Your task to perform on an android device: Go to Android settings Image 0: 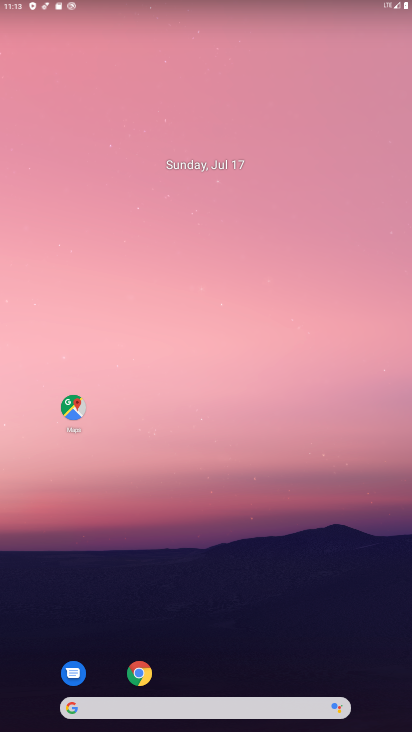
Step 0: press home button
Your task to perform on an android device: Go to Android settings Image 1: 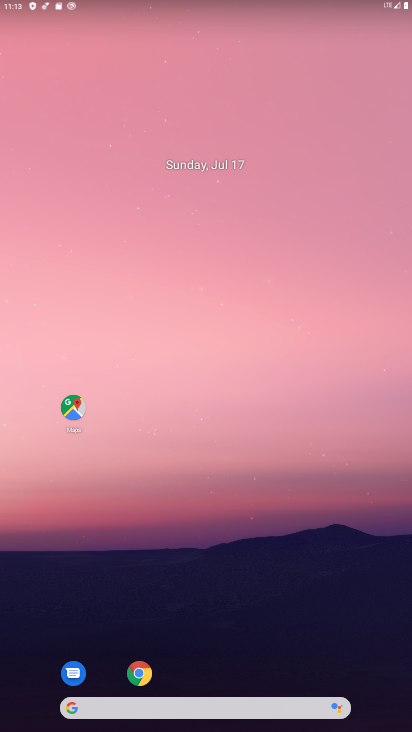
Step 1: drag from (247, 602) to (155, 170)
Your task to perform on an android device: Go to Android settings Image 2: 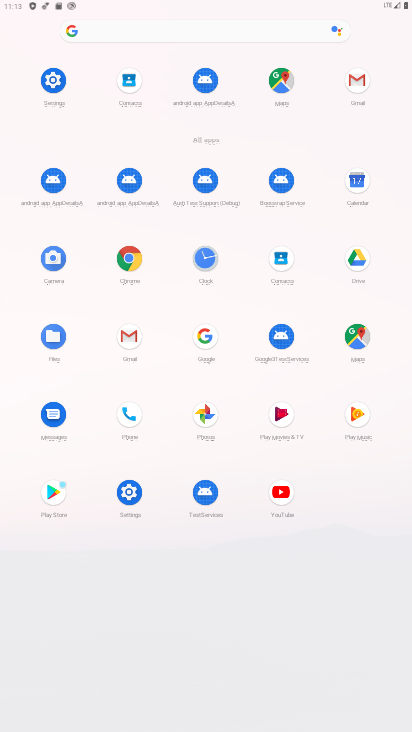
Step 2: click (47, 81)
Your task to perform on an android device: Go to Android settings Image 3: 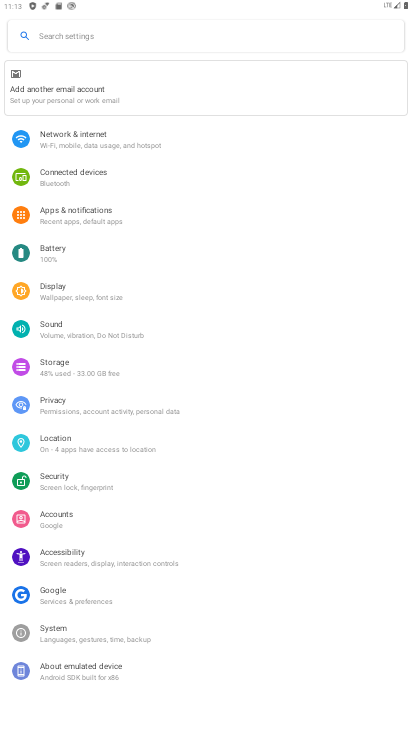
Step 3: task complete